Your task to perform on an android device: Open the stopwatch Image 0: 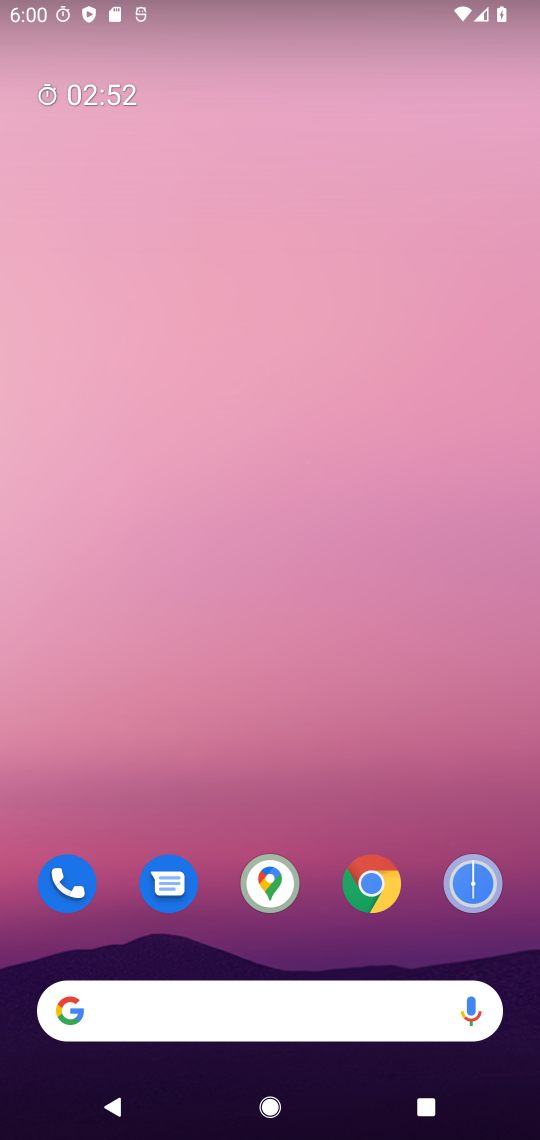
Step 0: click (460, 859)
Your task to perform on an android device: Open the stopwatch Image 1: 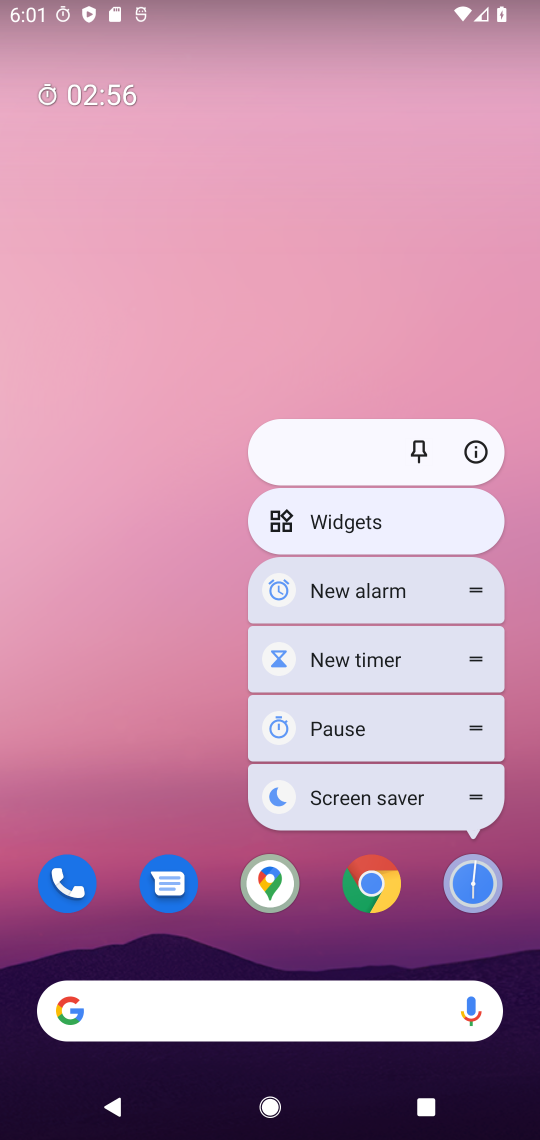
Step 1: click (489, 890)
Your task to perform on an android device: Open the stopwatch Image 2: 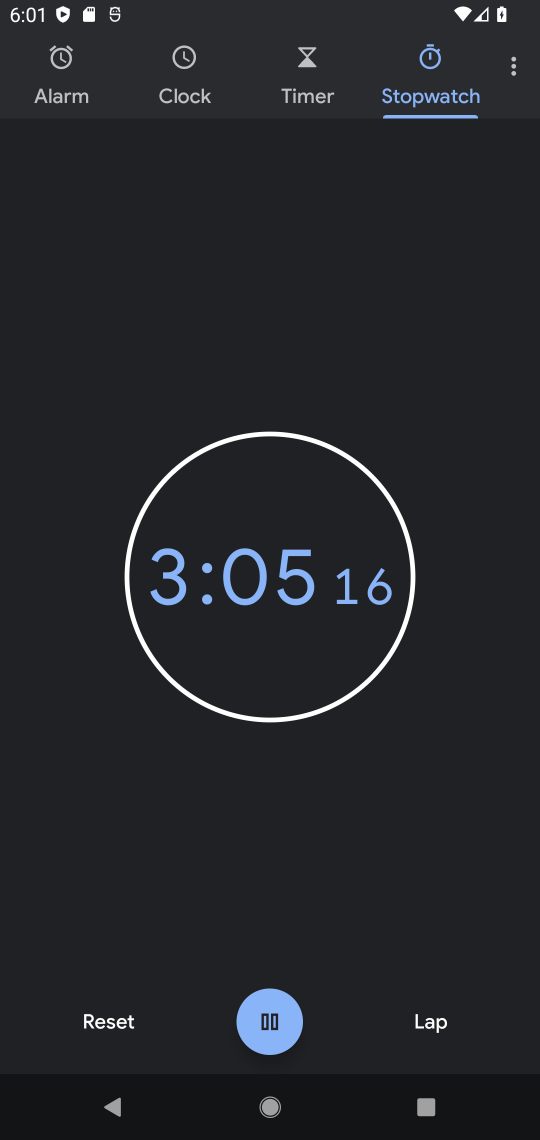
Step 2: task complete